Your task to perform on an android device: turn on location history Image 0: 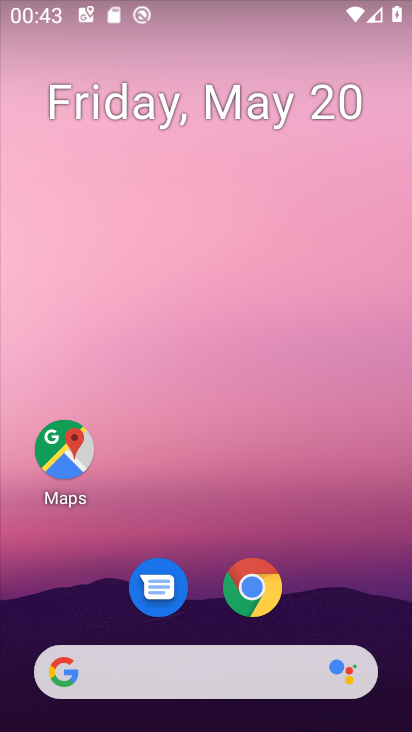
Step 0: drag from (361, 575) to (341, 190)
Your task to perform on an android device: turn on location history Image 1: 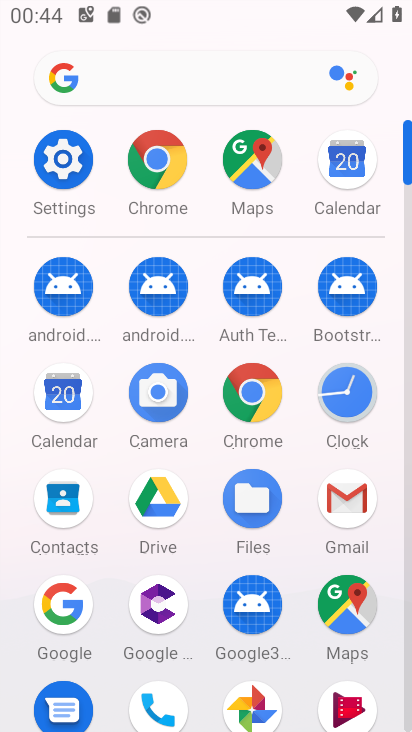
Step 1: click (66, 171)
Your task to perform on an android device: turn on location history Image 2: 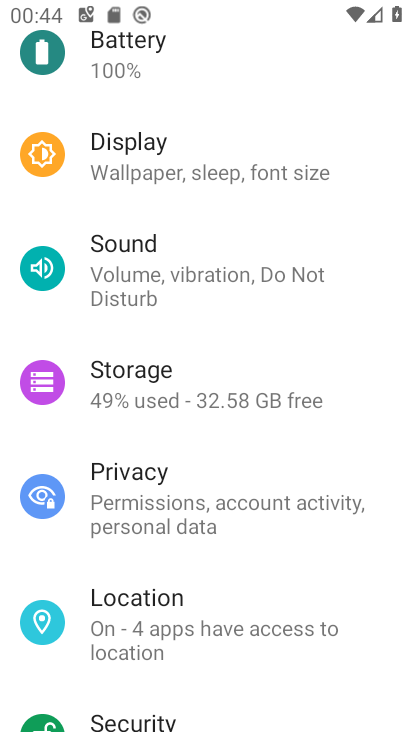
Step 2: drag from (357, 252) to (344, 374)
Your task to perform on an android device: turn on location history Image 3: 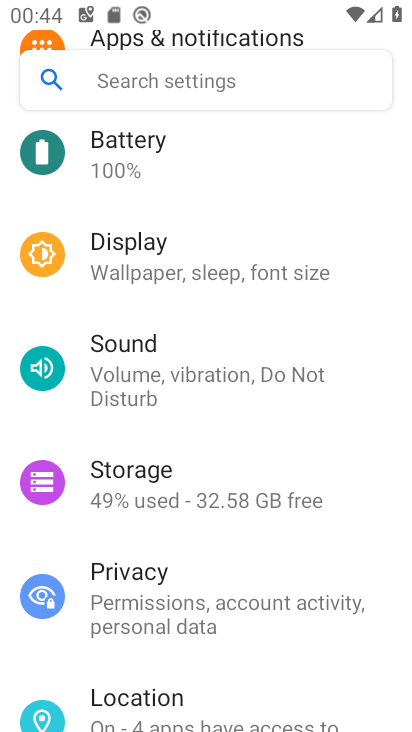
Step 3: drag from (350, 202) to (341, 365)
Your task to perform on an android device: turn on location history Image 4: 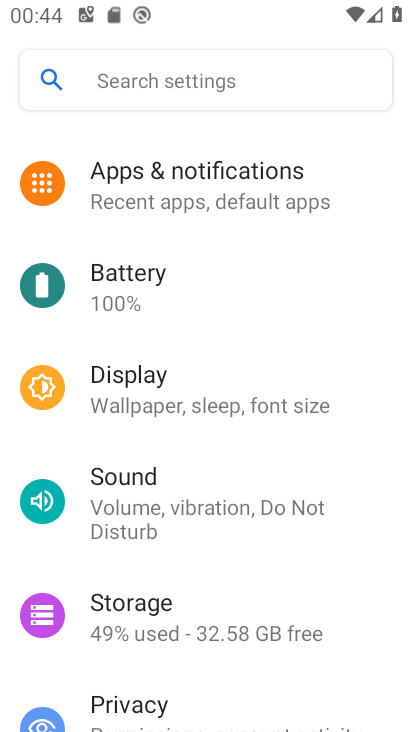
Step 4: drag from (361, 196) to (362, 331)
Your task to perform on an android device: turn on location history Image 5: 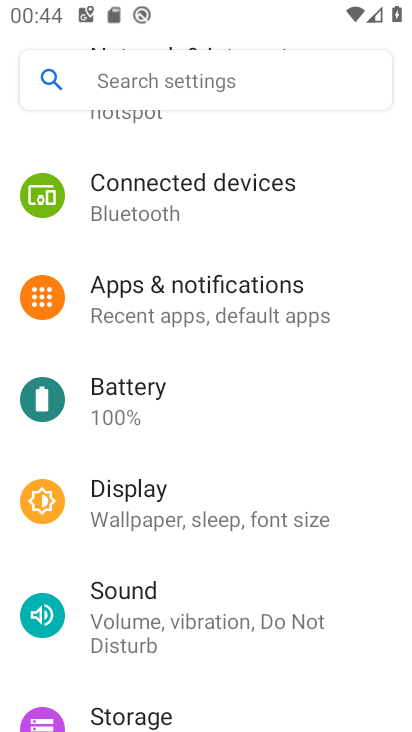
Step 5: drag from (372, 263) to (371, 381)
Your task to perform on an android device: turn on location history Image 6: 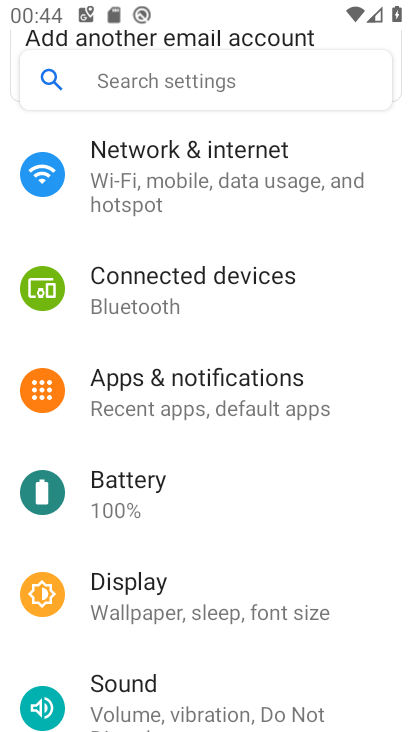
Step 6: drag from (353, 245) to (351, 310)
Your task to perform on an android device: turn on location history Image 7: 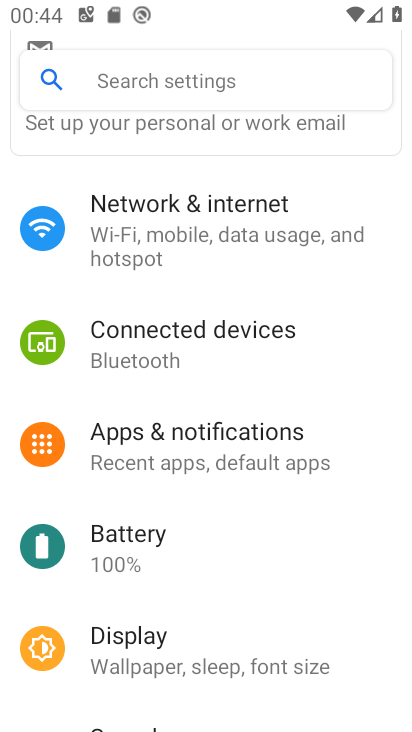
Step 7: drag from (351, 410) to (360, 313)
Your task to perform on an android device: turn on location history Image 8: 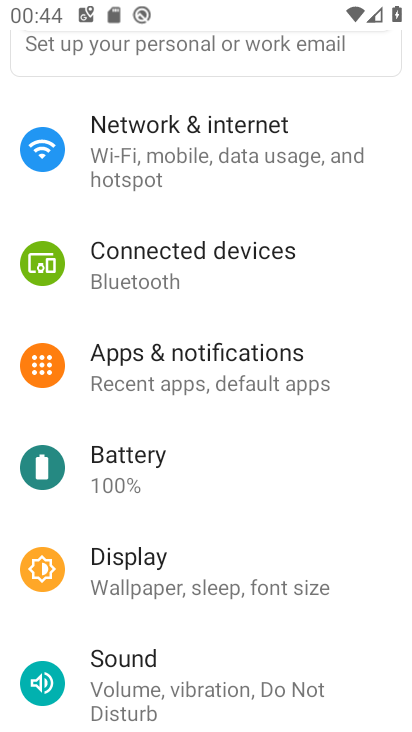
Step 8: drag from (361, 437) to (361, 333)
Your task to perform on an android device: turn on location history Image 9: 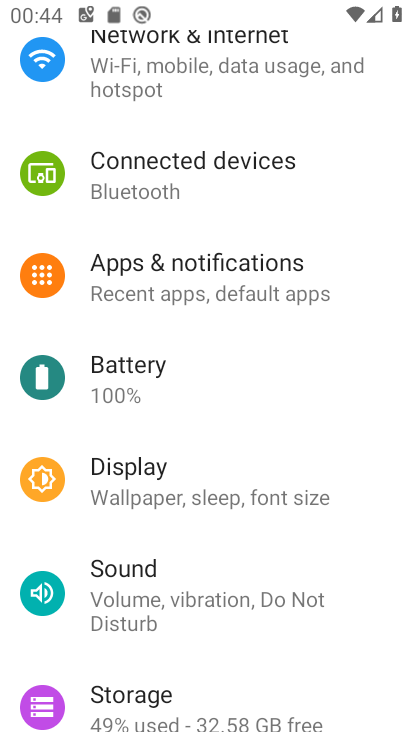
Step 9: drag from (361, 465) to (352, 383)
Your task to perform on an android device: turn on location history Image 10: 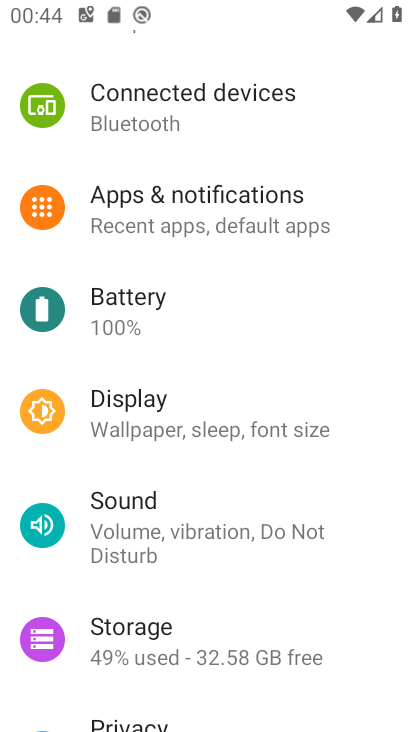
Step 10: drag from (371, 529) to (371, 414)
Your task to perform on an android device: turn on location history Image 11: 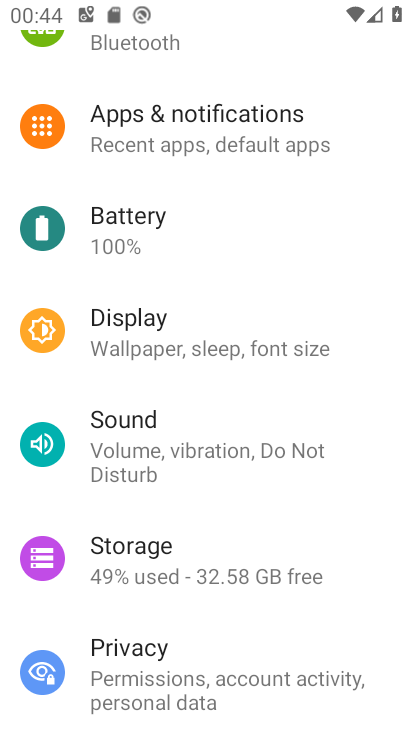
Step 11: drag from (334, 567) to (339, 504)
Your task to perform on an android device: turn on location history Image 12: 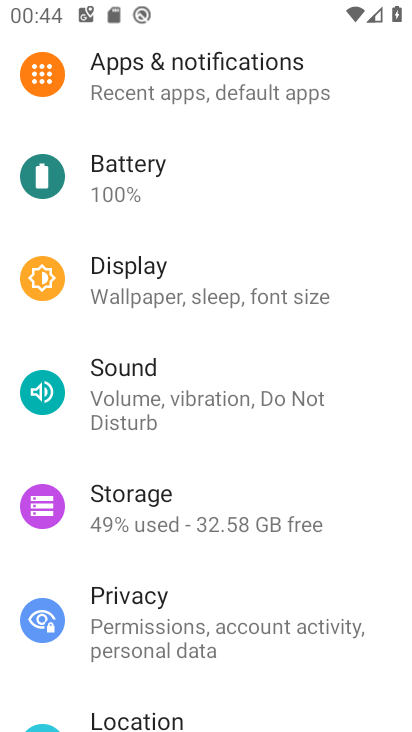
Step 12: drag from (332, 630) to (333, 529)
Your task to perform on an android device: turn on location history Image 13: 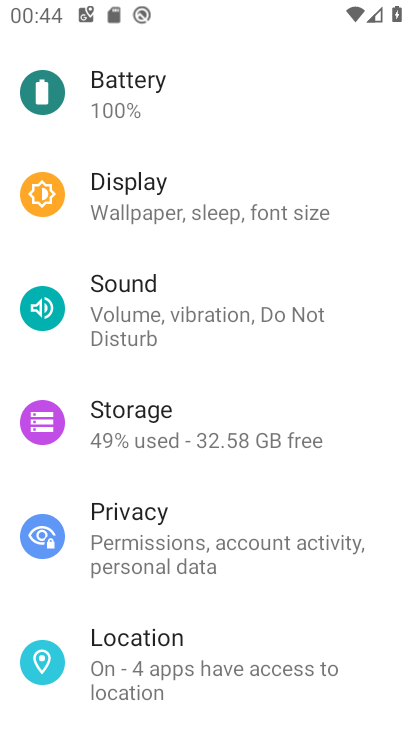
Step 13: drag from (324, 609) to (324, 543)
Your task to perform on an android device: turn on location history Image 14: 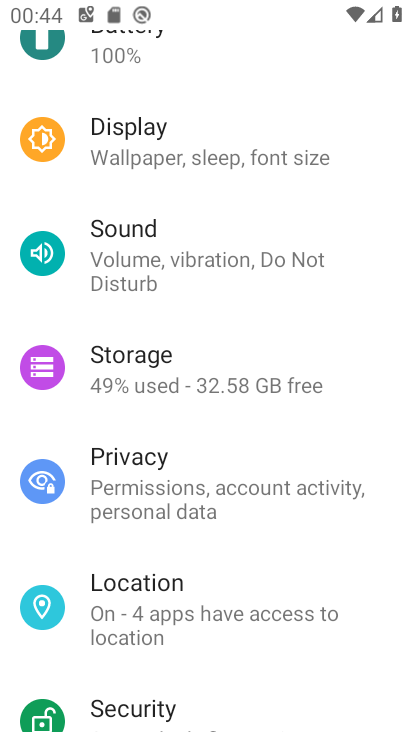
Step 14: click (291, 626)
Your task to perform on an android device: turn on location history Image 15: 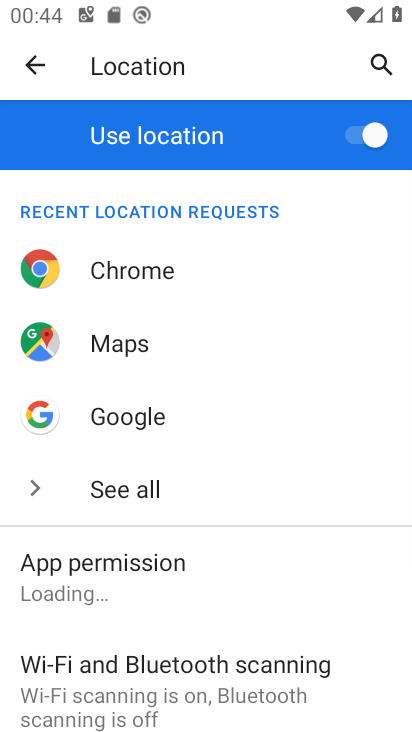
Step 15: drag from (295, 608) to (304, 483)
Your task to perform on an android device: turn on location history Image 16: 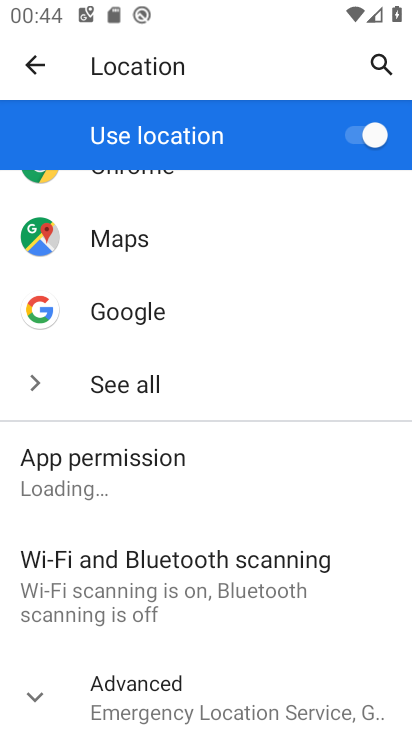
Step 16: drag from (305, 642) to (303, 507)
Your task to perform on an android device: turn on location history Image 17: 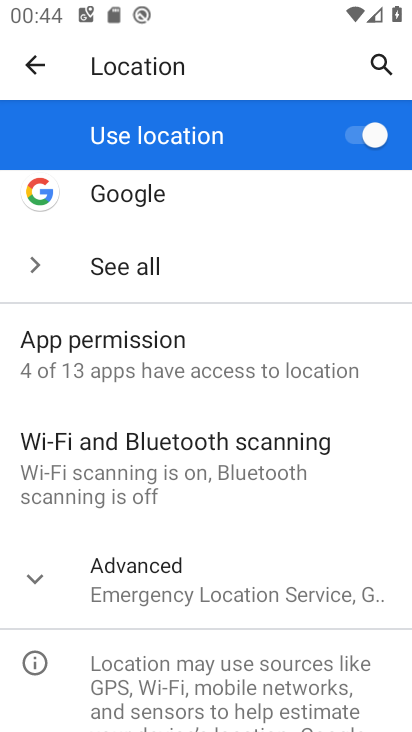
Step 17: drag from (244, 650) to (242, 551)
Your task to perform on an android device: turn on location history Image 18: 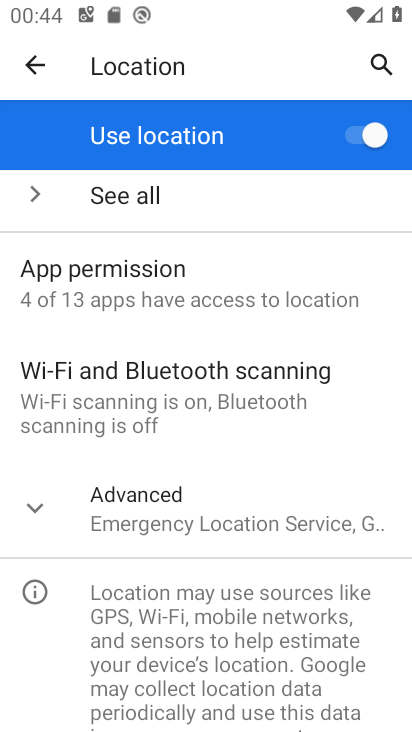
Step 18: click (233, 523)
Your task to perform on an android device: turn on location history Image 19: 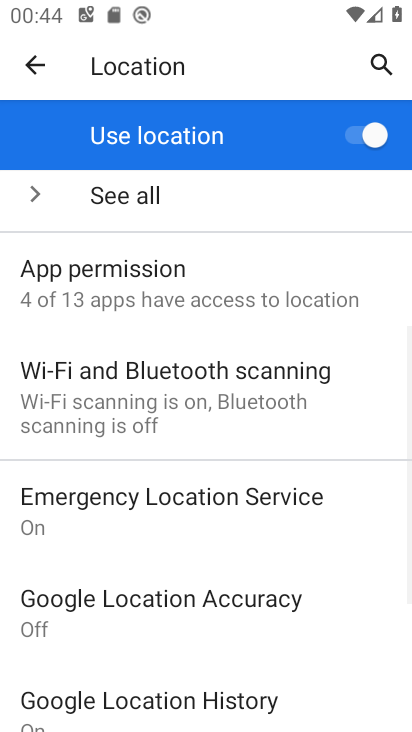
Step 19: drag from (250, 636) to (252, 549)
Your task to perform on an android device: turn on location history Image 20: 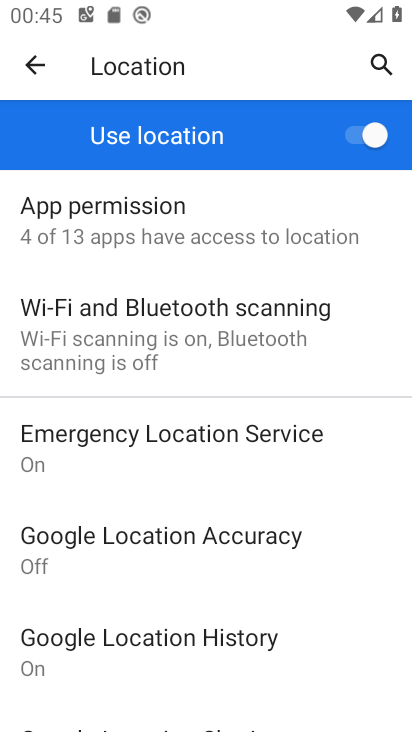
Step 20: drag from (271, 680) to (255, 563)
Your task to perform on an android device: turn on location history Image 21: 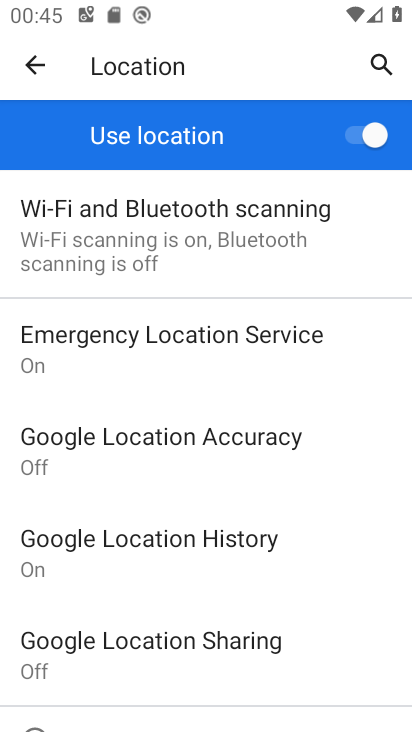
Step 21: drag from (321, 667) to (320, 555)
Your task to perform on an android device: turn on location history Image 22: 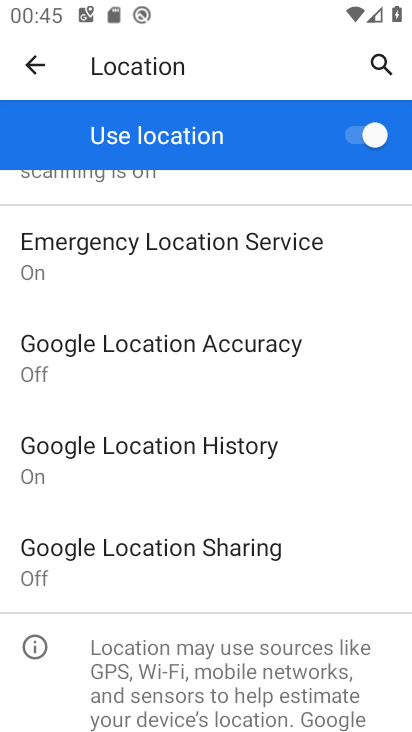
Step 22: click (220, 454)
Your task to perform on an android device: turn on location history Image 23: 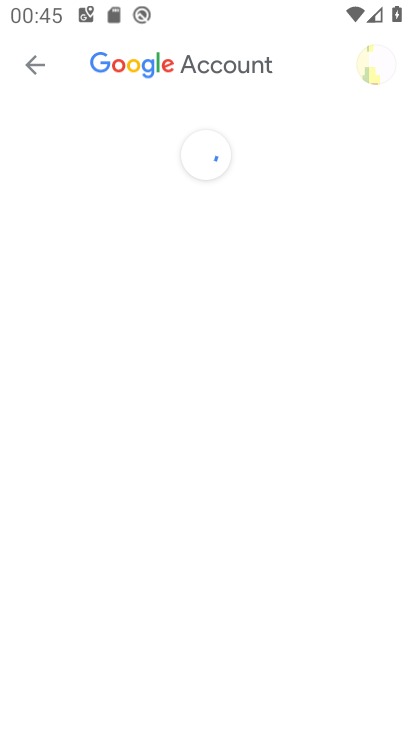
Step 23: task complete